Your task to perform on an android device: set default search engine in the chrome app Image 0: 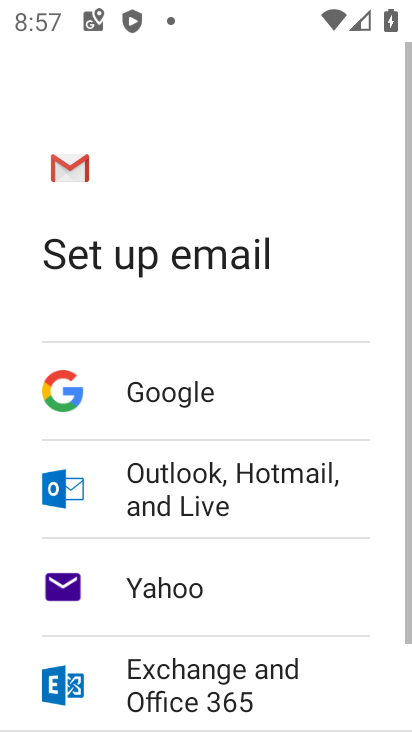
Step 0: press home button
Your task to perform on an android device: set default search engine in the chrome app Image 1: 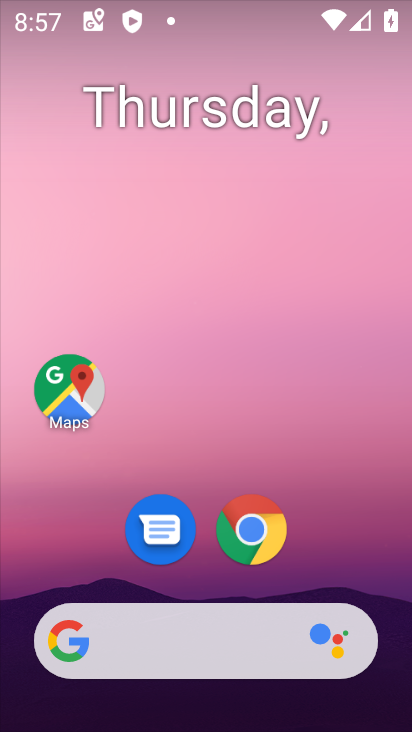
Step 1: click (250, 531)
Your task to perform on an android device: set default search engine in the chrome app Image 2: 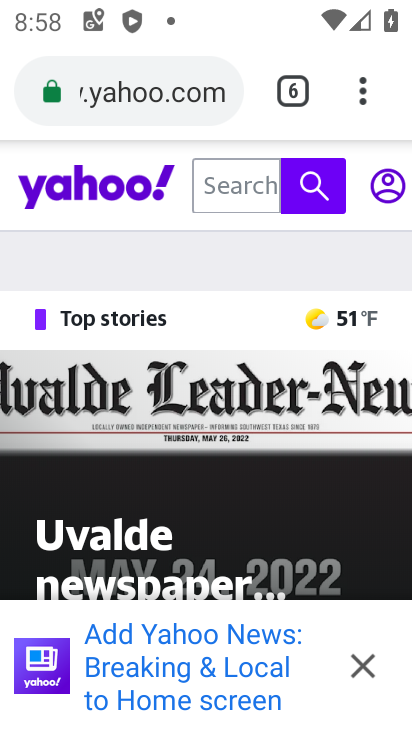
Step 2: click (362, 99)
Your task to perform on an android device: set default search engine in the chrome app Image 3: 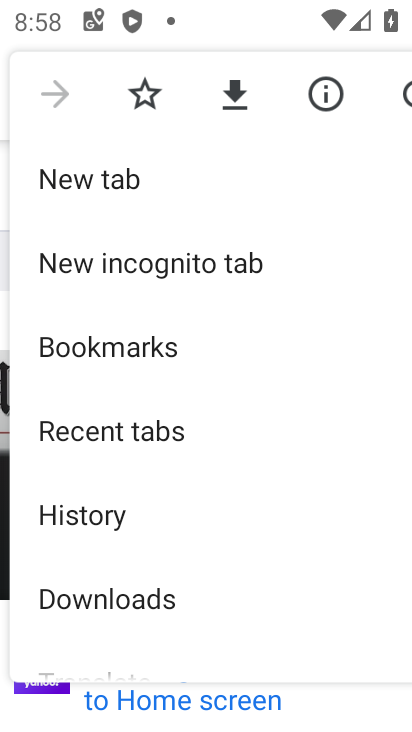
Step 3: drag from (184, 630) to (196, 125)
Your task to perform on an android device: set default search engine in the chrome app Image 4: 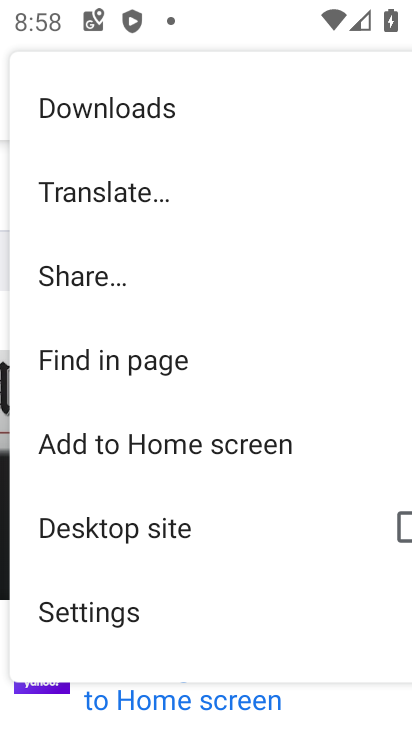
Step 4: click (121, 612)
Your task to perform on an android device: set default search engine in the chrome app Image 5: 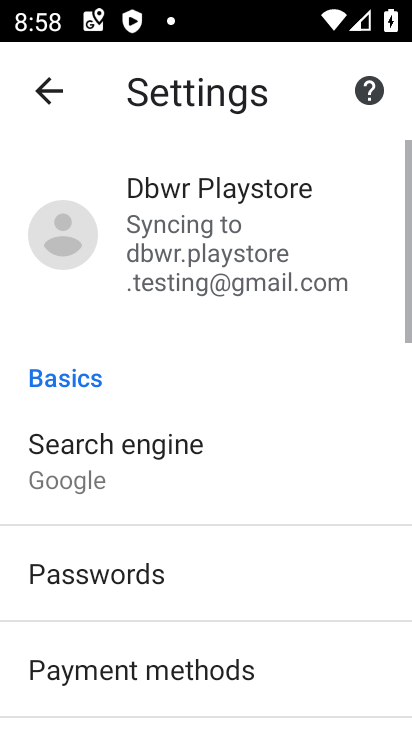
Step 5: click (65, 436)
Your task to perform on an android device: set default search engine in the chrome app Image 6: 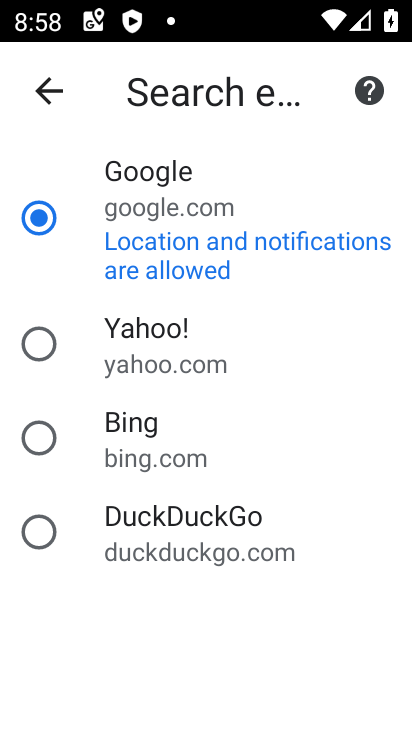
Step 6: click (34, 348)
Your task to perform on an android device: set default search engine in the chrome app Image 7: 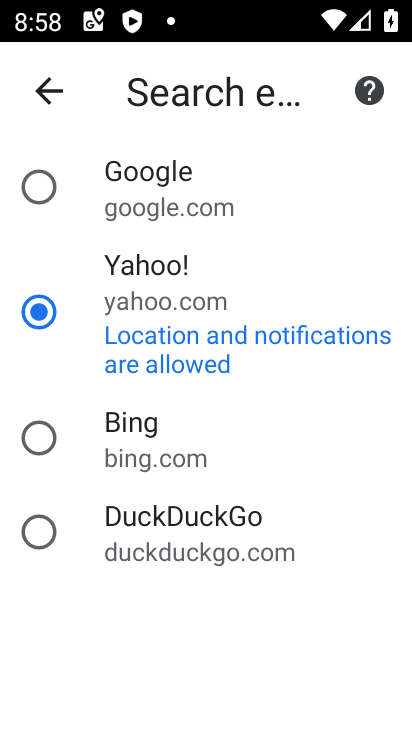
Step 7: task complete